Your task to perform on an android device: toggle data saver in the chrome app Image 0: 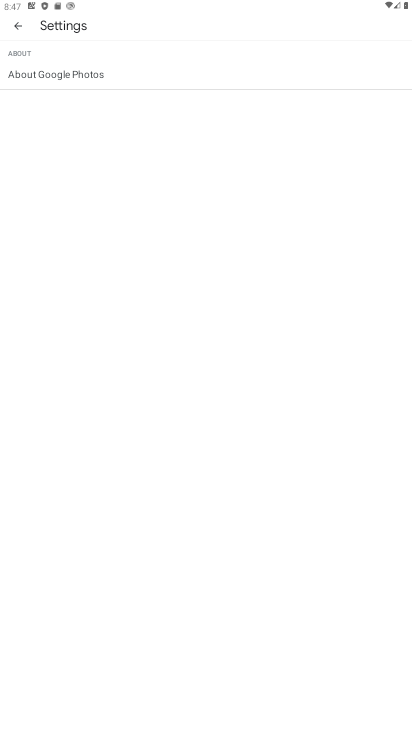
Step 0: press home button
Your task to perform on an android device: toggle data saver in the chrome app Image 1: 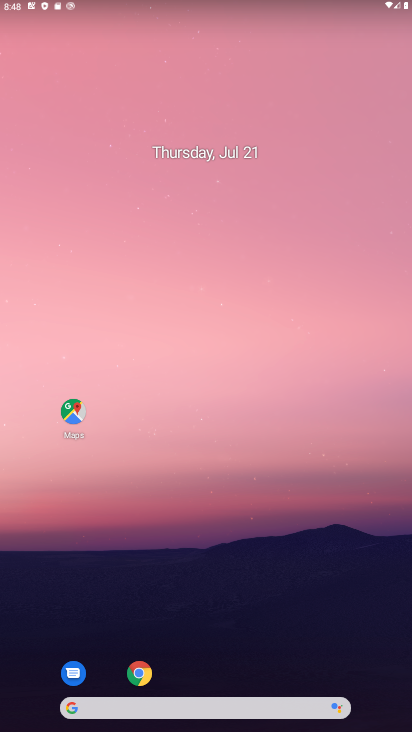
Step 1: click (143, 675)
Your task to perform on an android device: toggle data saver in the chrome app Image 2: 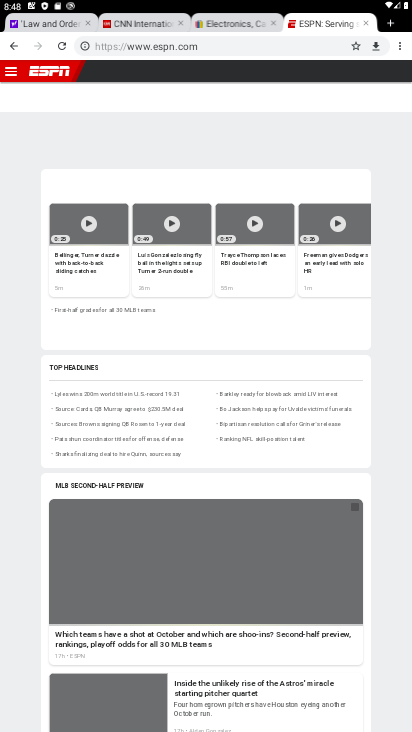
Step 2: click (398, 48)
Your task to perform on an android device: toggle data saver in the chrome app Image 3: 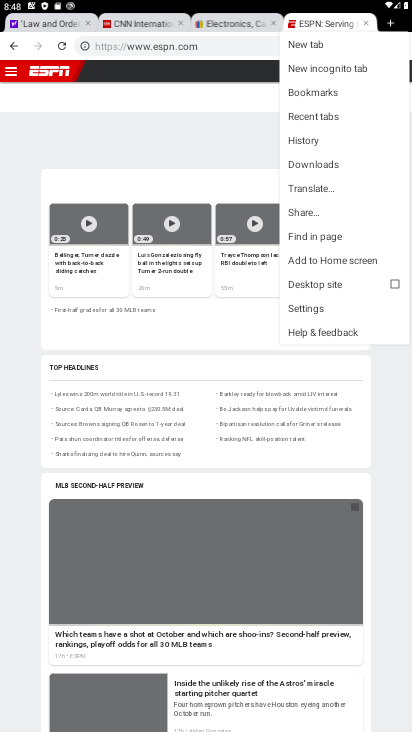
Step 3: click (308, 308)
Your task to perform on an android device: toggle data saver in the chrome app Image 4: 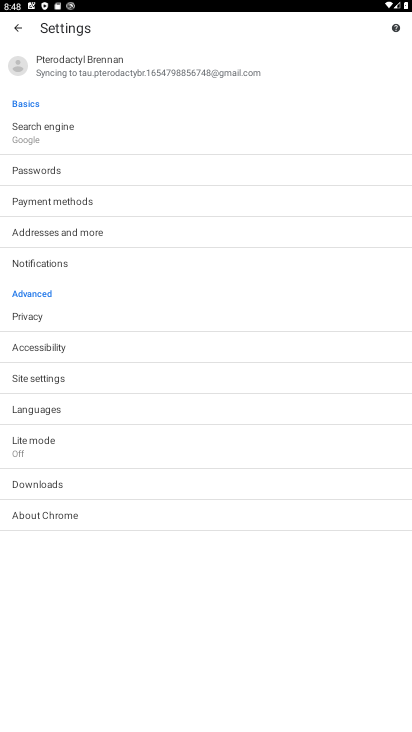
Step 4: click (49, 439)
Your task to perform on an android device: toggle data saver in the chrome app Image 5: 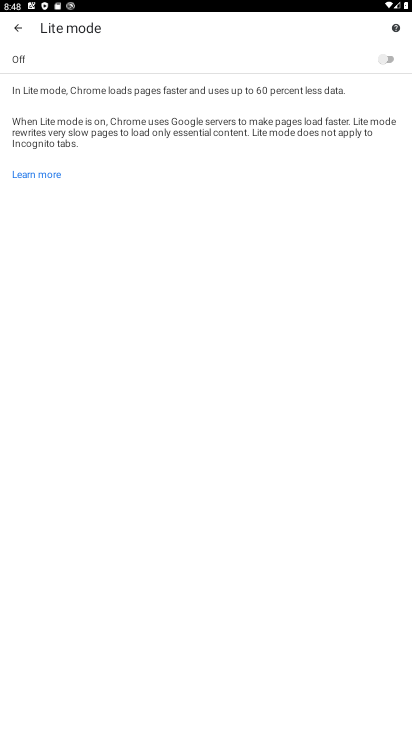
Step 5: task complete